Your task to perform on an android device: Open battery settings Image 0: 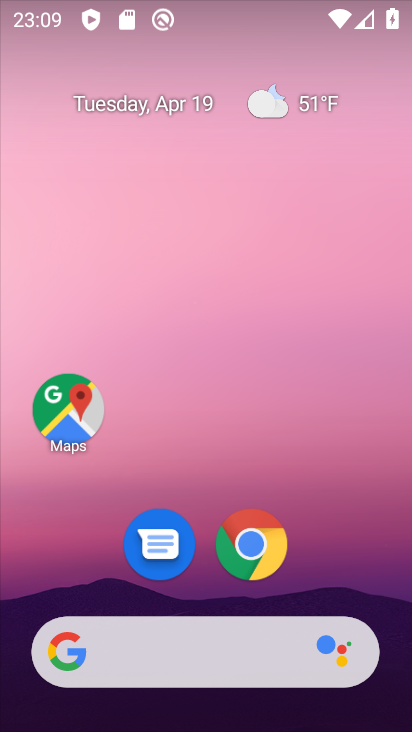
Step 0: drag from (350, 540) to (300, 74)
Your task to perform on an android device: Open battery settings Image 1: 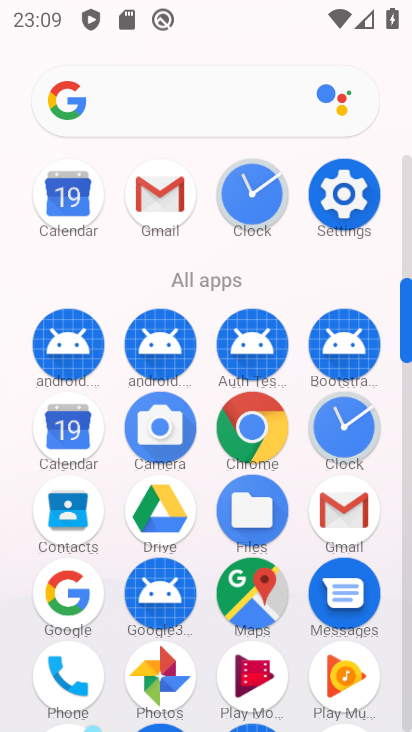
Step 1: click (332, 193)
Your task to perform on an android device: Open battery settings Image 2: 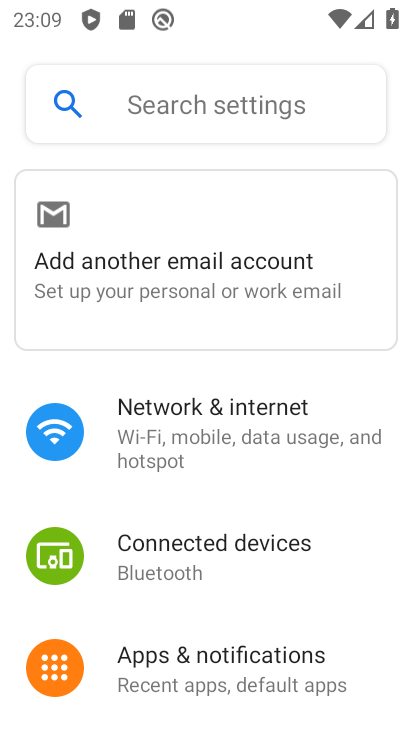
Step 2: drag from (261, 429) to (266, 311)
Your task to perform on an android device: Open battery settings Image 3: 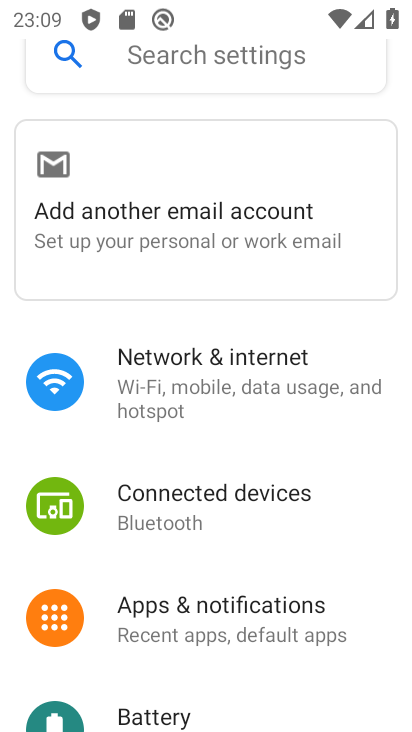
Step 3: drag from (277, 597) to (276, 464)
Your task to perform on an android device: Open battery settings Image 4: 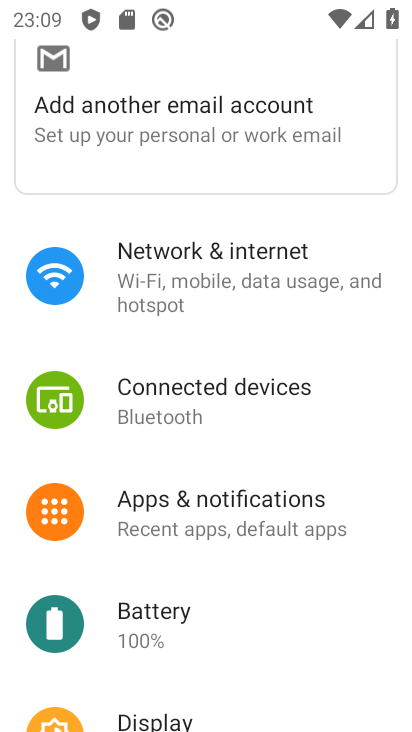
Step 4: click (238, 620)
Your task to perform on an android device: Open battery settings Image 5: 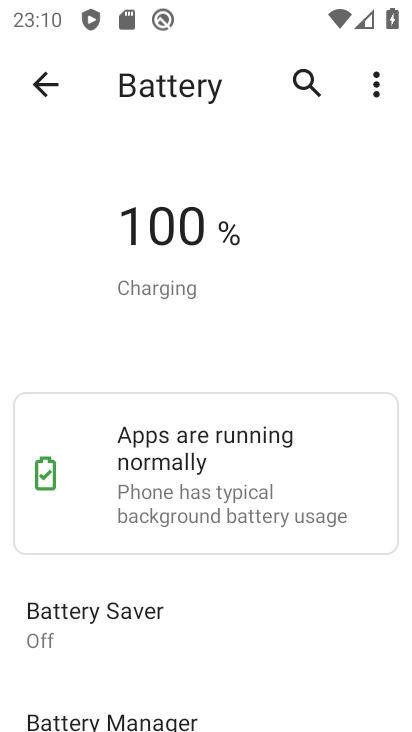
Step 5: task complete